Your task to perform on an android device: Open battery settings Image 0: 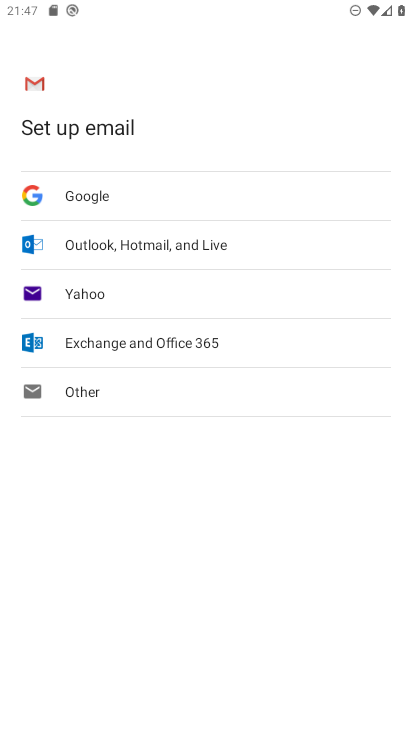
Step 0: press home button
Your task to perform on an android device: Open battery settings Image 1: 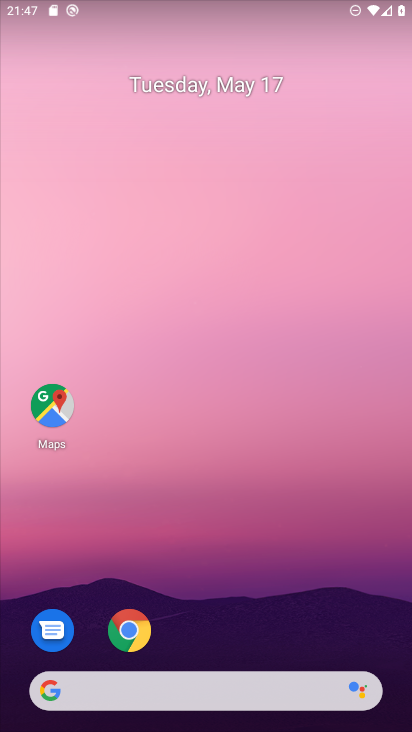
Step 1: drag from (328, 564) to (304, 116)
Your task to perform on an android device: Open battery settings Image 2: 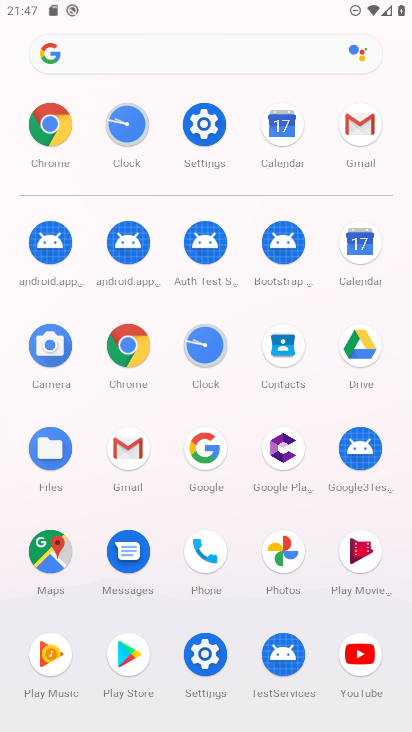
Step 2: click (204, 120)
Your task to perform on an android device: Open battery settings Image 3: 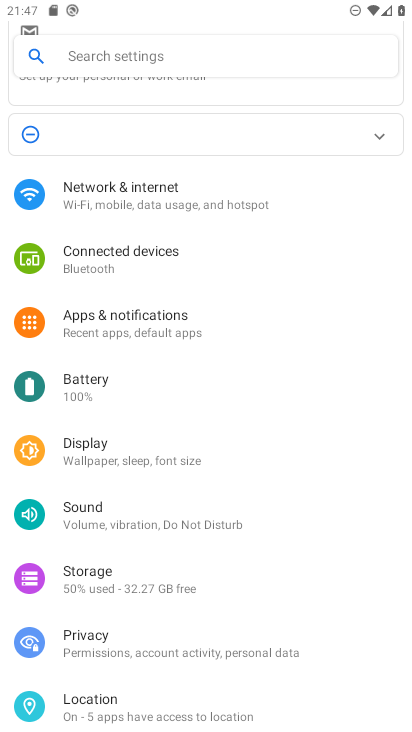
Step 3: drag from (283, 479) to (287, 344)
Your task to perform on an android device: Open battery settings Image 4: 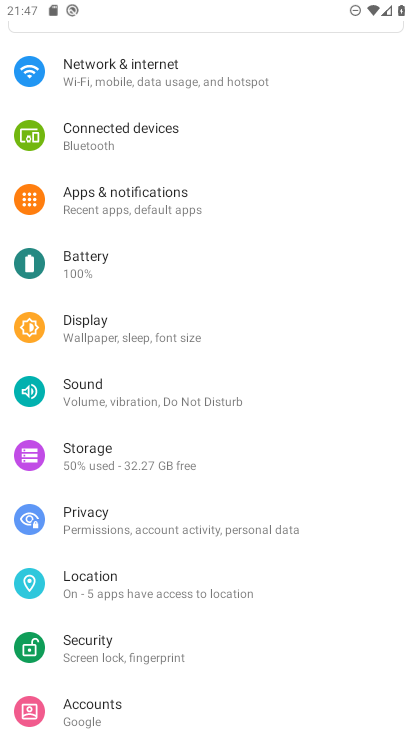
Step 4: drag from (305, 516) to (314, 347)
Your task to perform on an android device: Open battery settings Image 5: 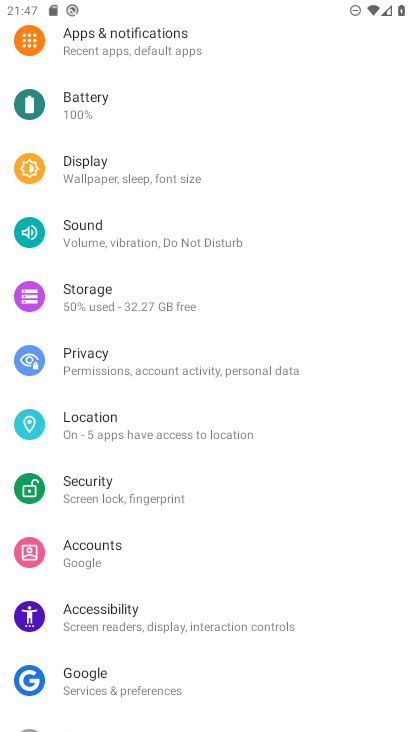
Step 5: drag from (319, 425) to (323, 373)
Your task to perform on an android device: Open battery settings Image 6: 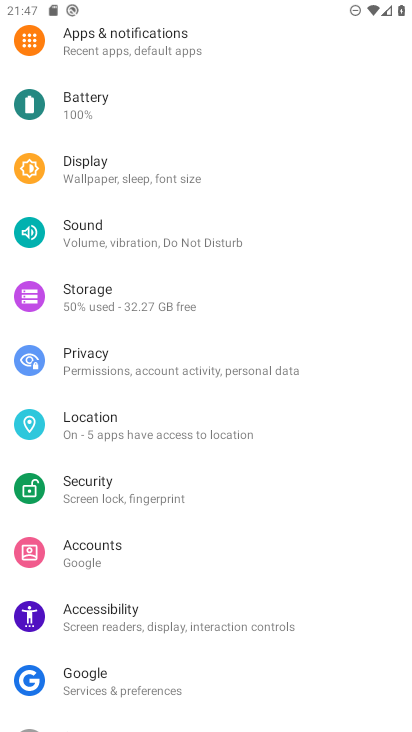
Step 6: drag from (326, 550) to (335, 383)
Your task to perform on an android device: Open battery settings Image 7: 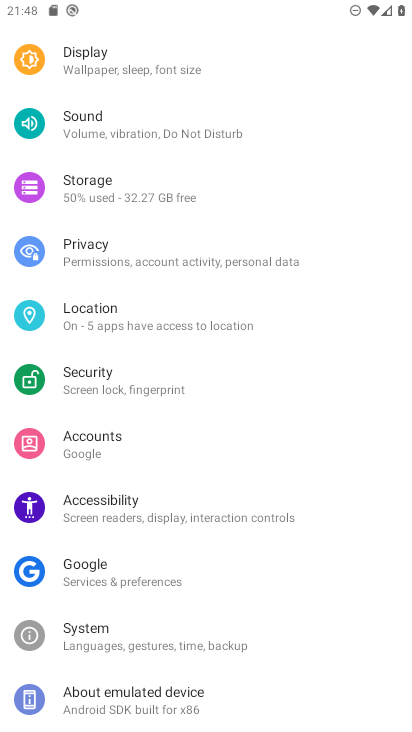
Step 7: drag from (324, 555) to (341, 405)
Your task to perform on an android device: Open battery settings Image 8: 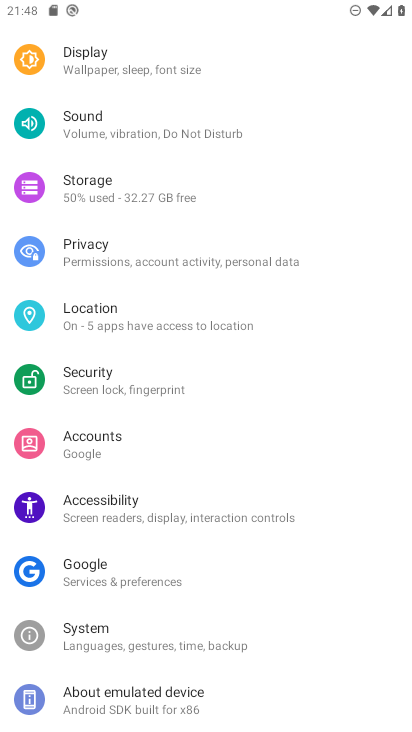
Step 8: drag from (339, 525) to (339, 368)
Your task to perform on an android device: Open battery settings Image 9: 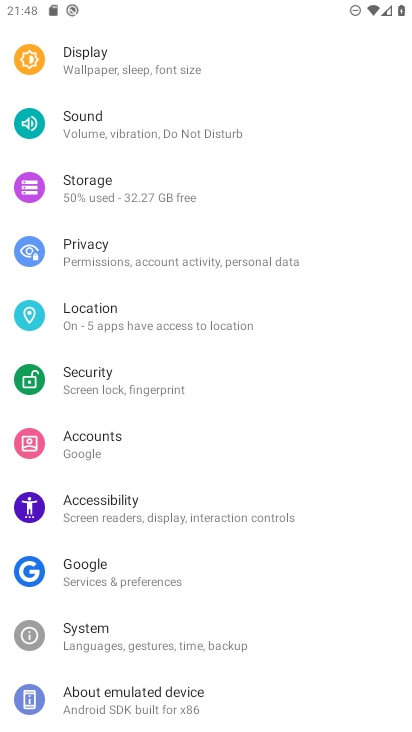
Step 9: drag from (339, 251) to (326, 393)
Your task to perform on an android device: Open battery settings Image 10: 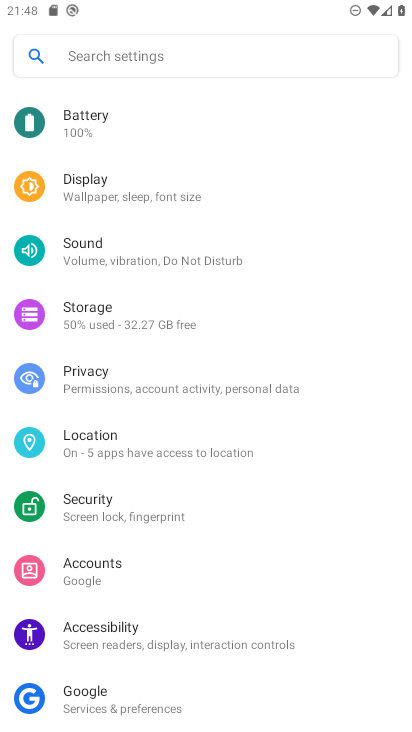
Step 10: drag from (330, 250) to (337, 375)
Your task to perform on an android device: Open battery settings Image 11: 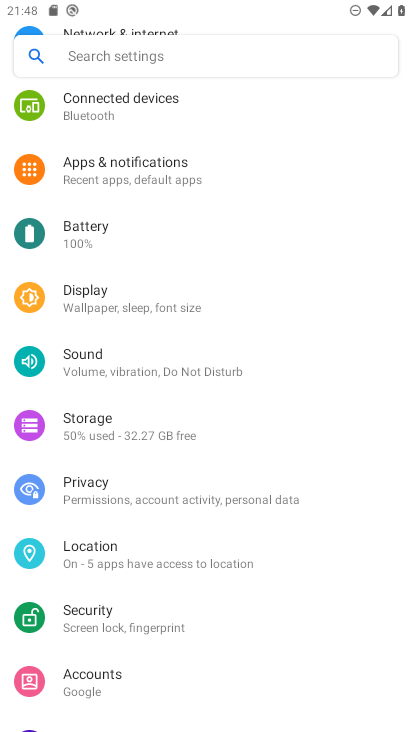
Step 11: drag from (332, 242) to (332, 356)
Your task to perform on an android device: Open battery settings Image 12: 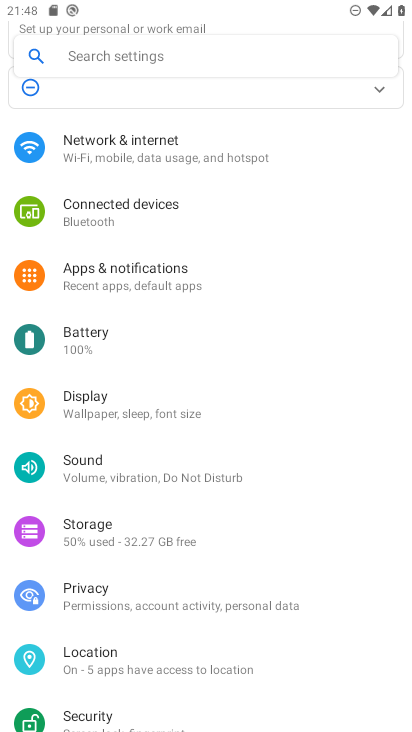
Step 12: click (221, 336)
Your task to perform on an android device: Open battery settings Image 13: 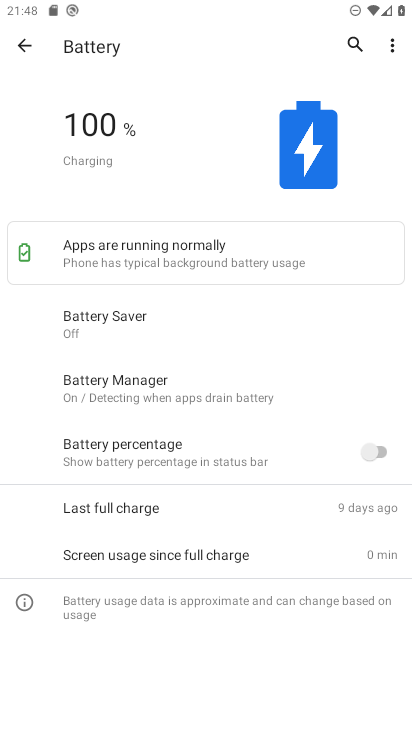
Step 13: task complete